Your task to perform on an android device: turn on notifications settings in the gmail app Image 0: 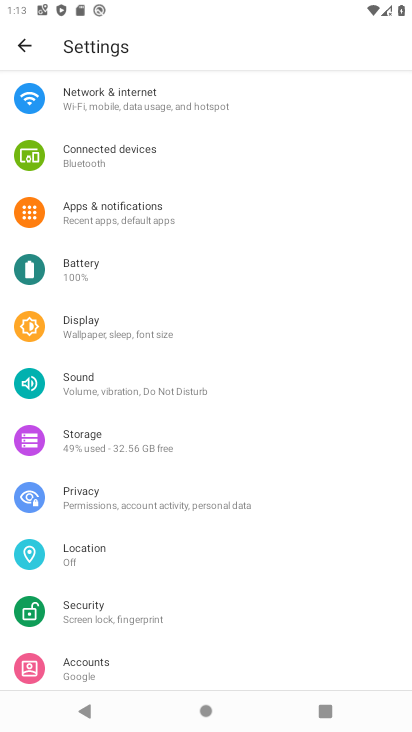
Step 0: drag from (129, 605) to (225, 136)
Your task to perform on an android device: turn on notifications settings in the gmail app Image 1: 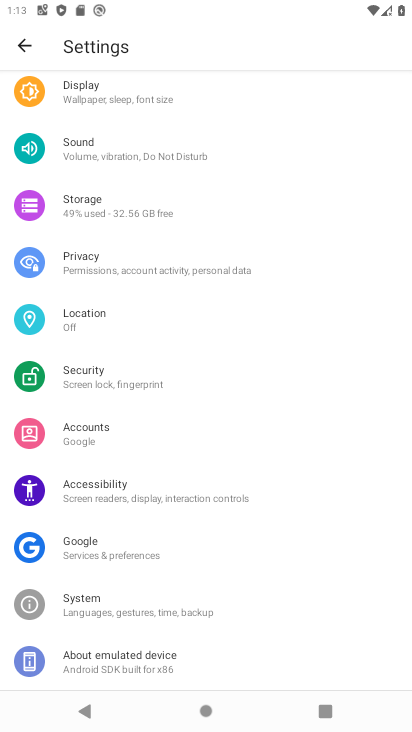
Step 1: press home button
Your task to perform on an android device: turn on notifications settings in the gmail app Image 2: 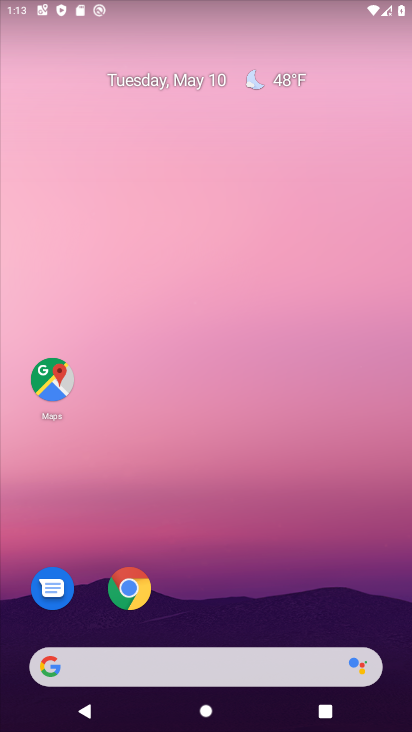
Step 2: drag from (243, 581) to (282, 232)
Your task to perform on an android device: turn on notifications settings in the gmail app Image 3: 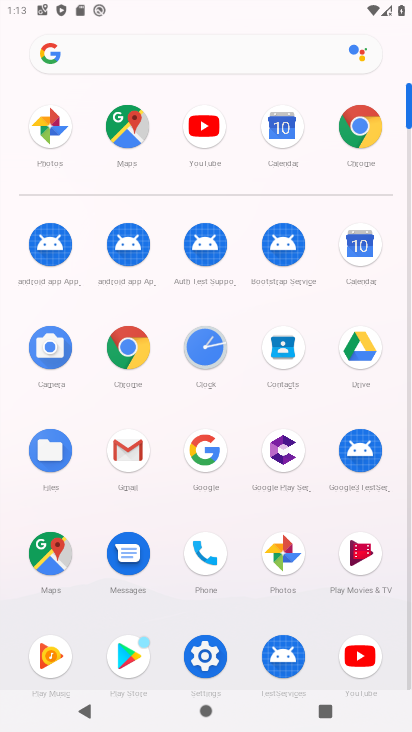
Step 3: click (123, 444)
Your task to perform on an android device: turn on notifications settings in the gmail app Image 4: 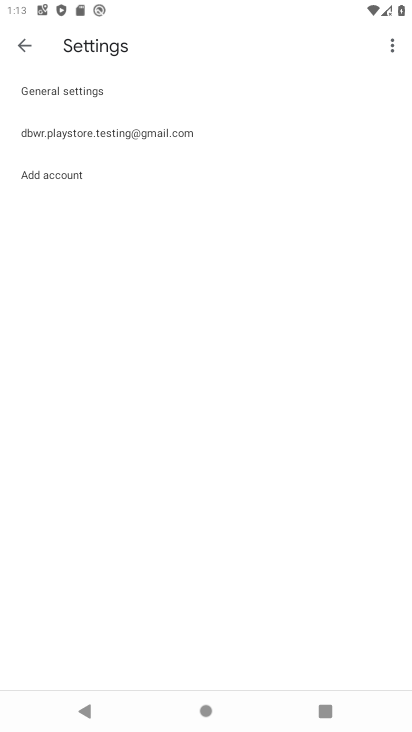
Step 4: click (14, 44)
Your task to perform on an android device: turn on notifications settings in the gmail app Image 5: 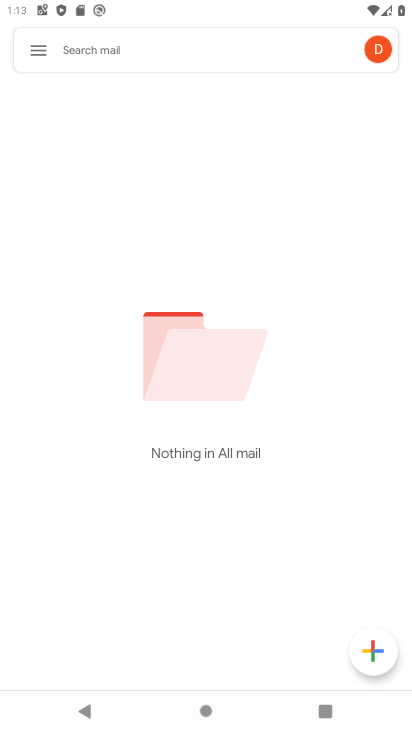
Step 5: click (36, 53)
Your task to perform on an android device: turn on notifications settings in the gmail app Image 6: 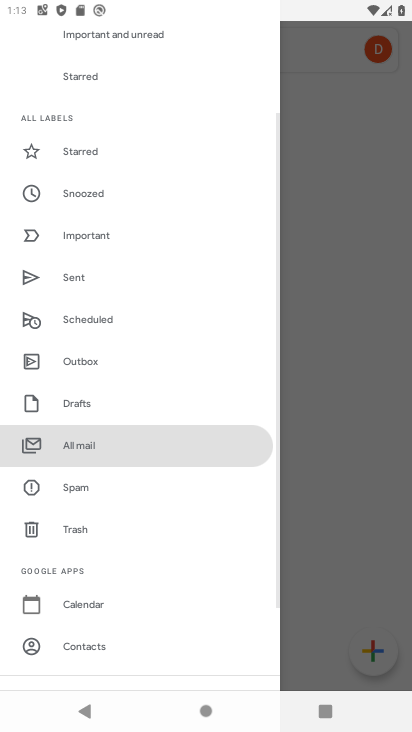
Step 6: drag from (116, 616) to (150, 312)
Your task to perform on an android device: turn on notifications settings in the gmail app Image 7: 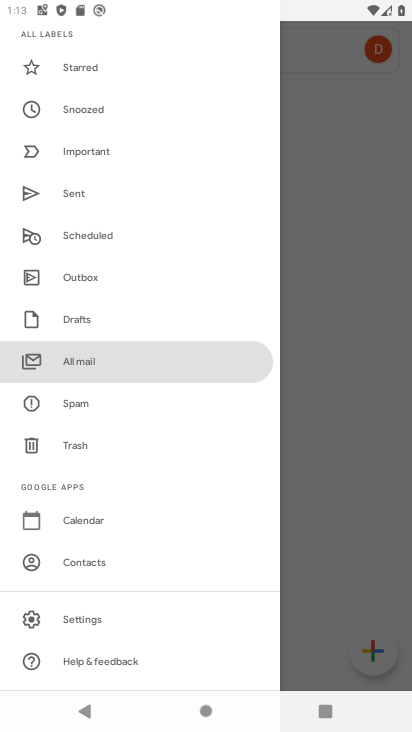
Step 7: click (89, 624)
Your task to perform on an android device: turn on notifications settings in the gmail app Image 8: 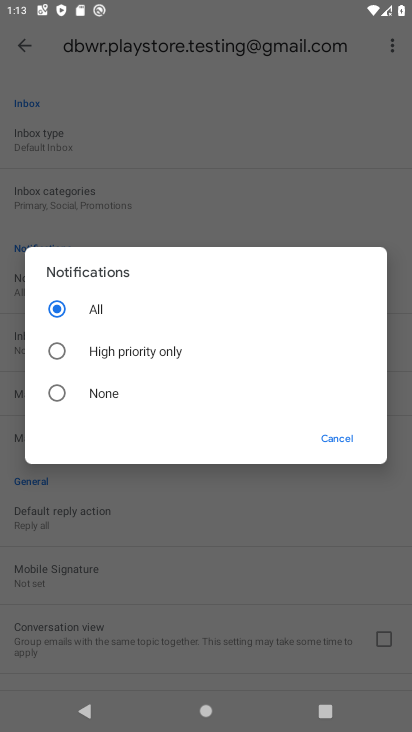
Step 8: click (346, 436)
Your task to perform on an android device: turn on notifications settings in the gmail app Image 9: 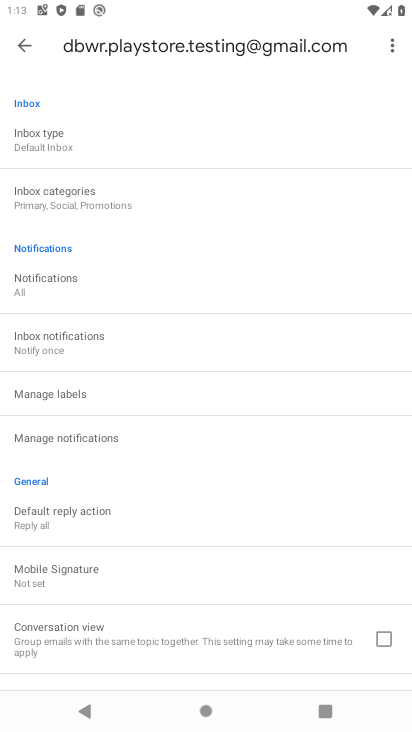
Step 9: click (61, 279)
Your task to perform on an android device: turn on notifications settings in the gmail app Image 10: 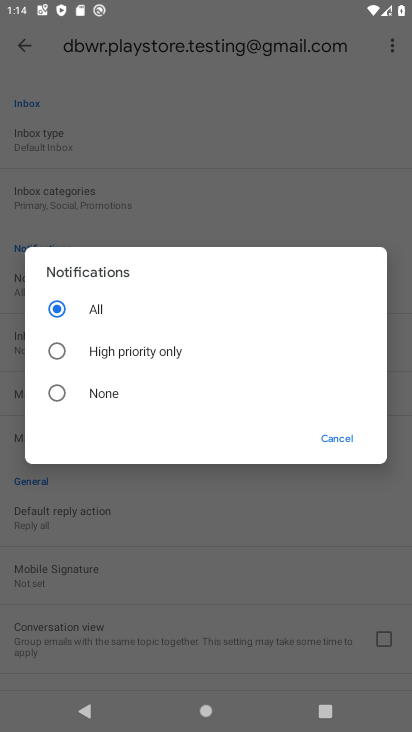
Step 10: task complete